Your task to perform on an android device: Go to notification settings Image 0: 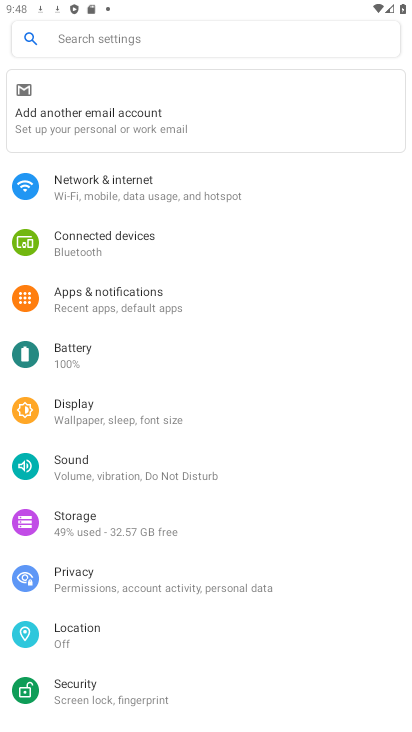
Step 0: press home button
Your task to perform on an android device: Go to notification settings Image 1: 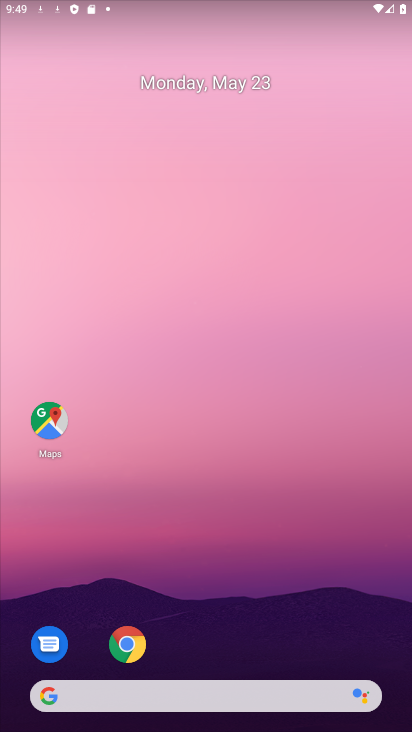
Step 1: drag from (262, 713) to (260, 238)
Your task to perform on an android device: Go to notification settings Image 2: 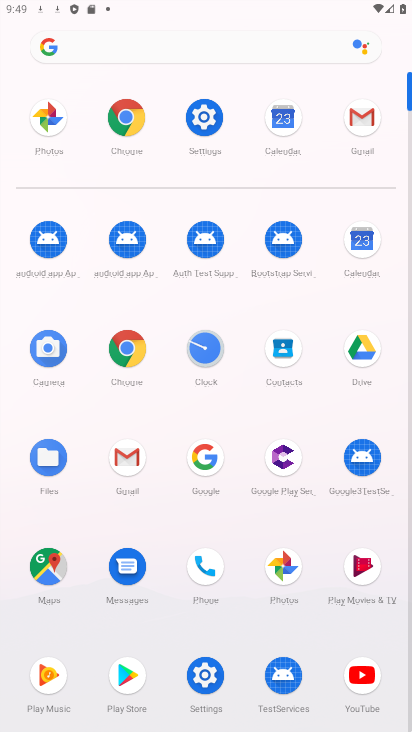
Step 2: click (206, 145)
Your task to perform on an android device: Go to notification settings Image 3: 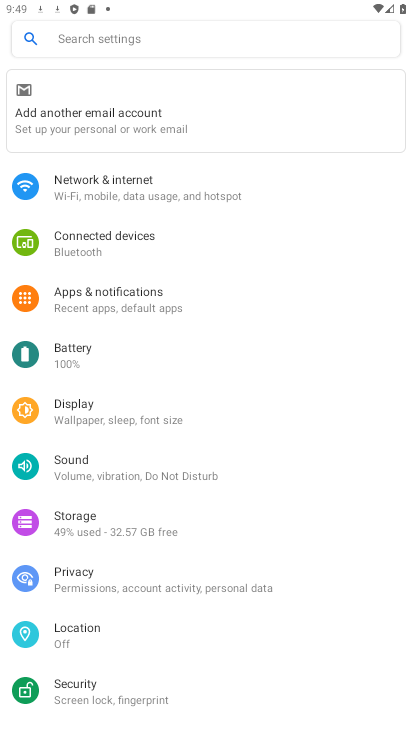
Step 3: click (163, 36)
Your task to perform on an android device: Go to notification settings Image 4: 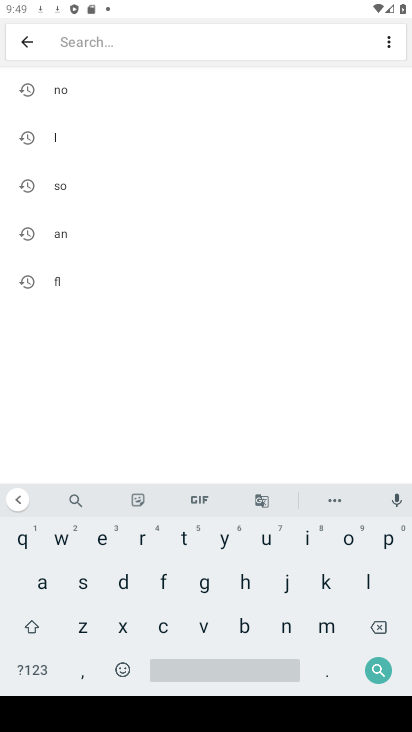
Step 4: click (287, 623)
Your task to perform on an android device: Go to notification settings Image 5: 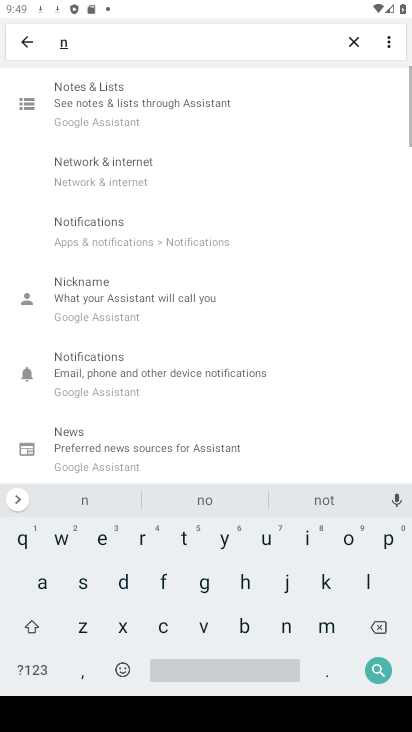
Step 5: click (352, 542)
Your task to perform on an android device: Go to notification settings Image 6: 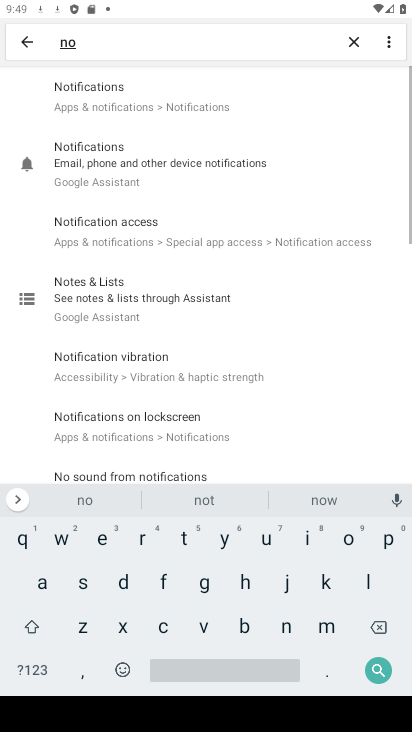
Step 6: click (126, 110)
Your task to perform on an android device: Go to notification settings Image 7: 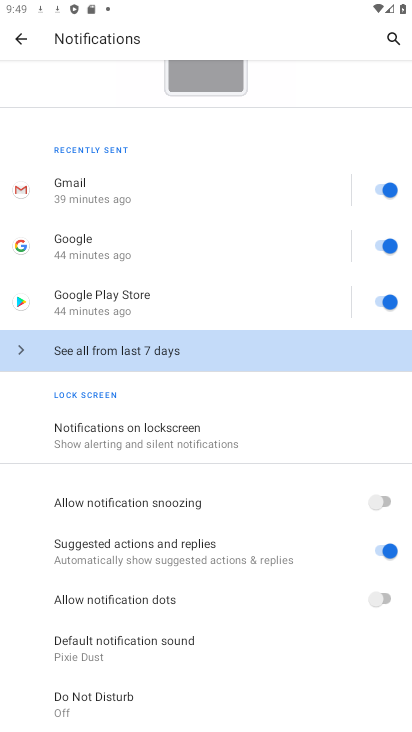
Step 7: click (130, 434)
Your task to perform on an android device: Go to notification settings Image 8: 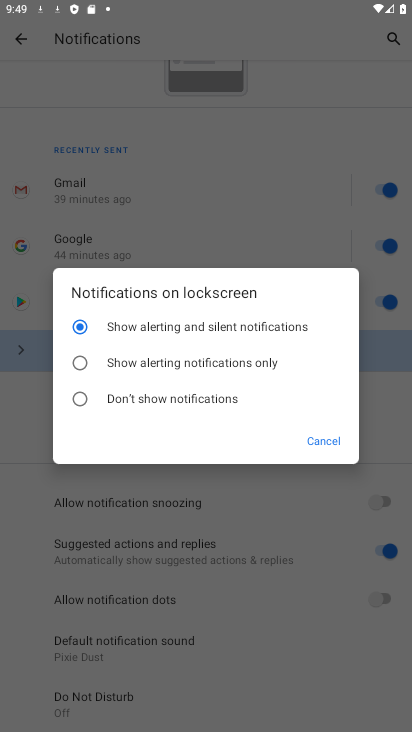
Step 8: task complete